Your task to perform on an android device: toggle priority inbox in the gmail app Image 0: 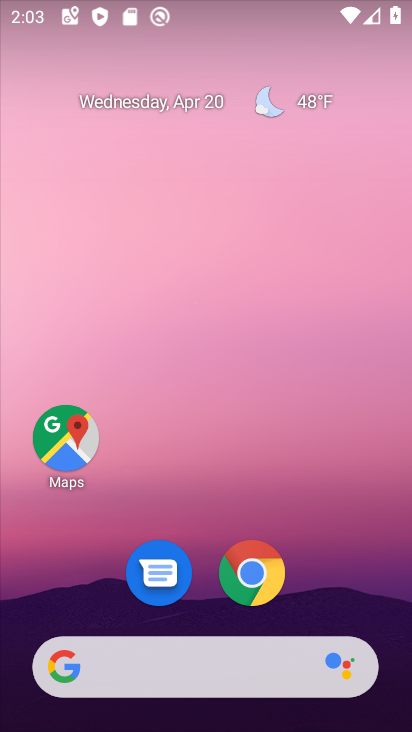
Step 0: drag from (135, 676) to (319, 89)
Your task to perform on an android device: toggle priority inbox in the gmail app Image 1: 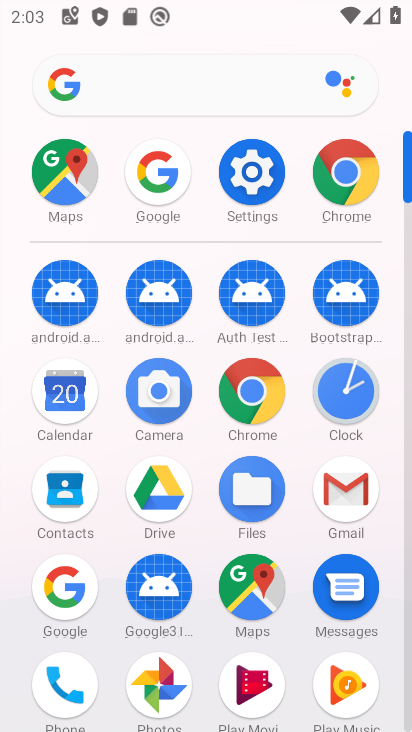
Step 1: click (348, 499)
Your task to perform on an android device: toggle priority inbox in the gmail app Image 2: 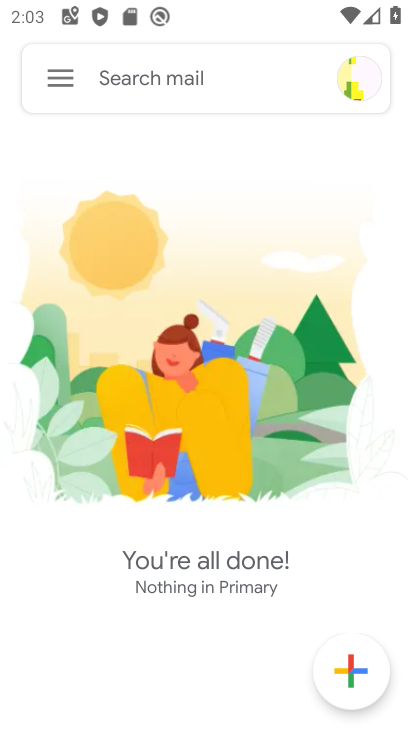
Step 2: click (67, 79)
Your task to perform on an android device: toggle priority inbox in the gmail app Image 3: 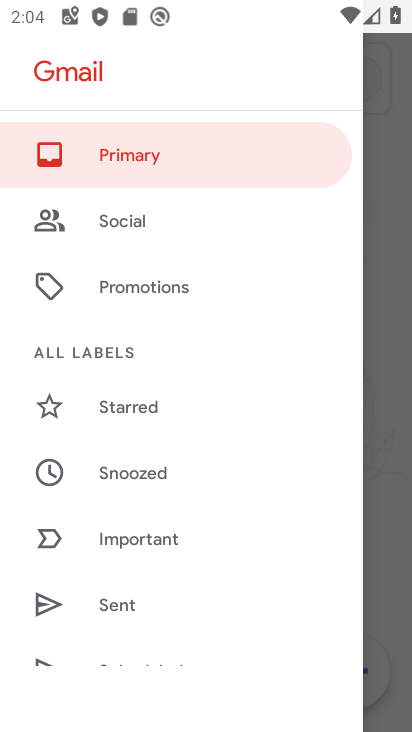
Step 3: drag from (156, 581) to (322, 237)
Your task to perform on an android device: toggle priority inbox in the gmail app Image 4: 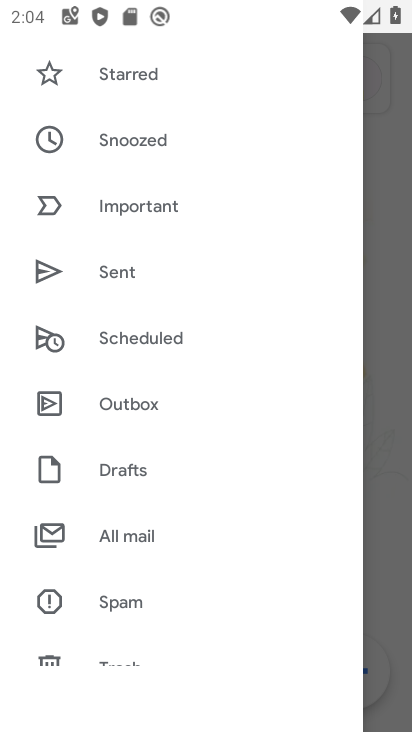
Step 4: drag from (245, 525) to (330, 106)
Your task to perform on an android device: toggle priority inbox in the gmail app Image 5: 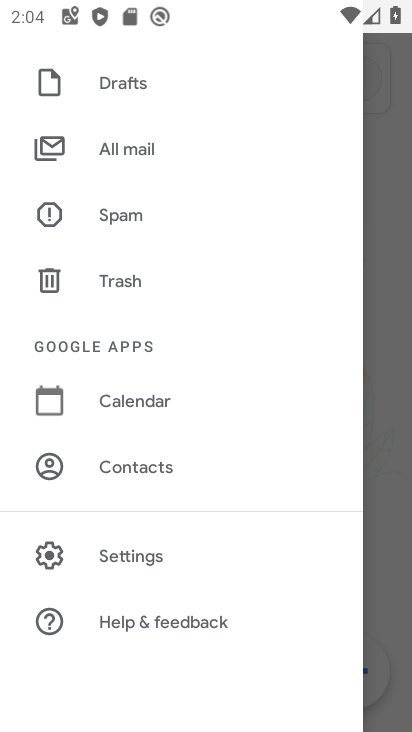
Step 5: click (124, 555)
Your task to perform on an android device: toggle priority inbox in the gmail app Image 6: 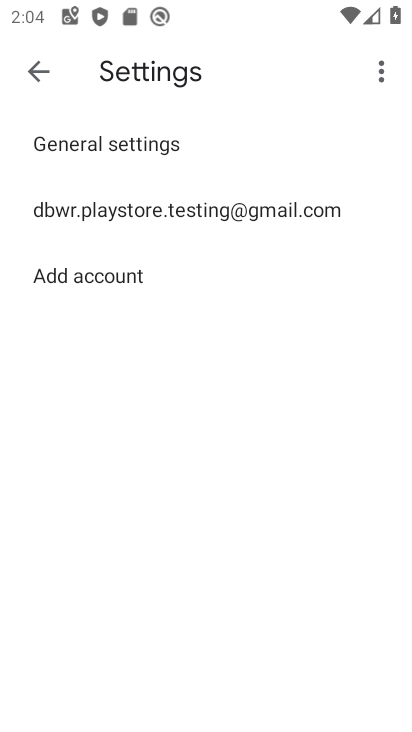
Step 6: click (283, 207)
Your task to perform on an android device: toggle priority inbox in the gmail app Image 7: 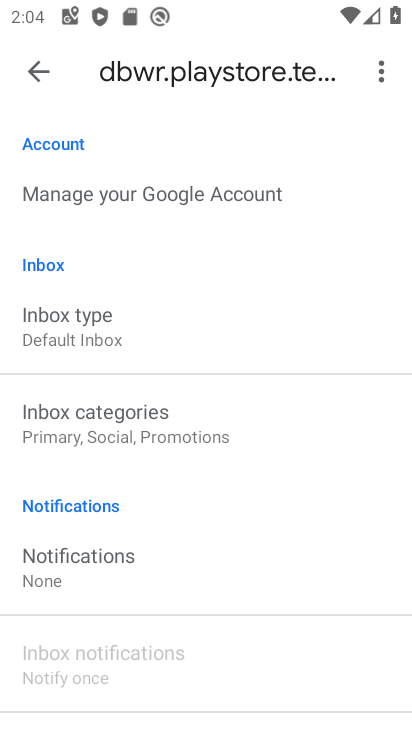
Step 7: click (97, 349)
Your task to perform on an android device: toggle priority inbox in the gmail app Image 8: 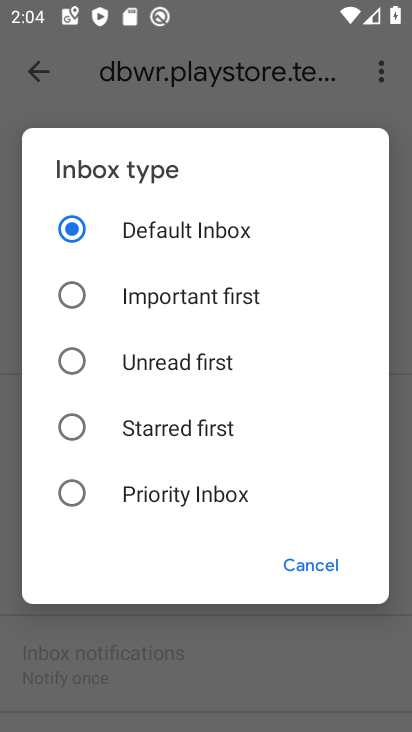
Step 8: click (73, 494)
Your task to perform on an android device: toggle priority inbox in the gmail app Image 9: 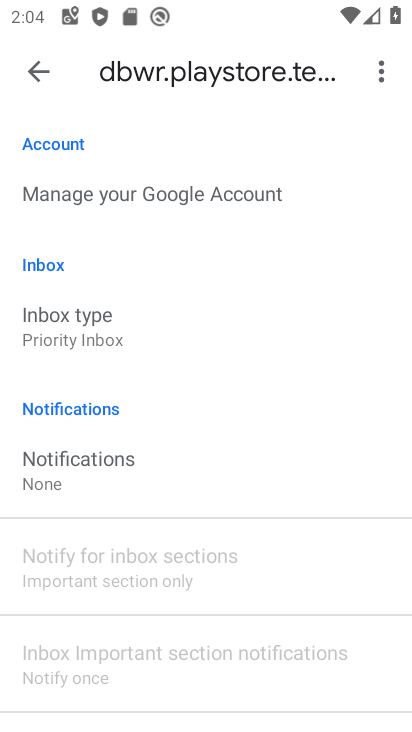
Step 9: task complete